Your task to perform on an android device: Open Chrome and go to the settings page Image 0: 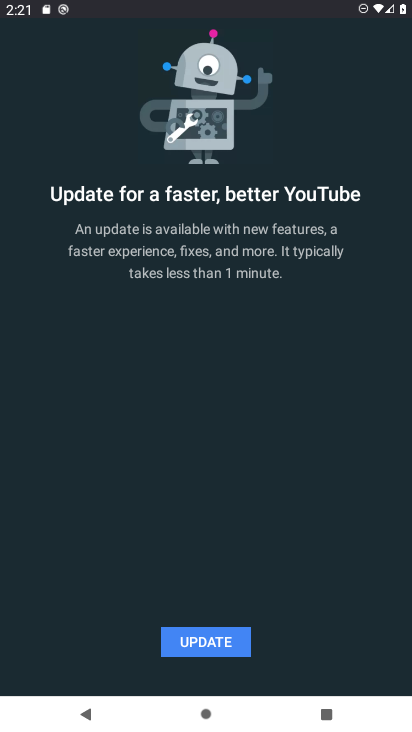
Step 0: press home button
Your task to perform on an android device: Open Chrome and go to the settings page Image 1: 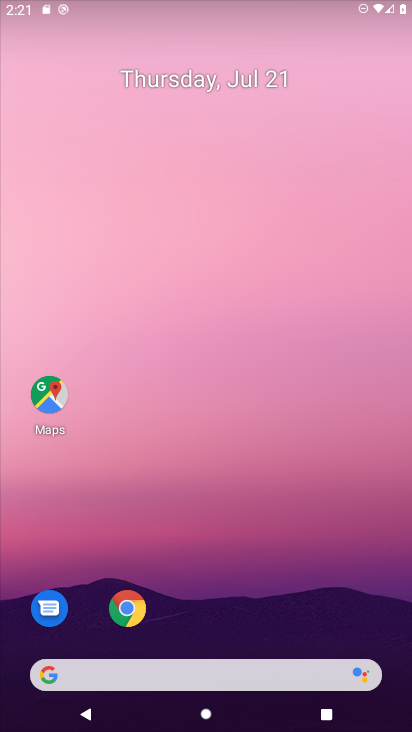
Step 1: click (141, 610)
Your task to perform on an android device: Open Chrome and go to the settings page Image 2: 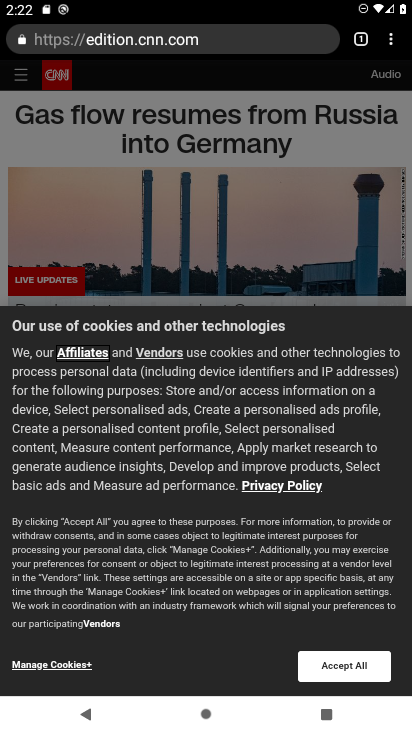
Step 2: click (387, 47)
Your task to perform on an android device: Open Chrome and go to the settings page Image 3: 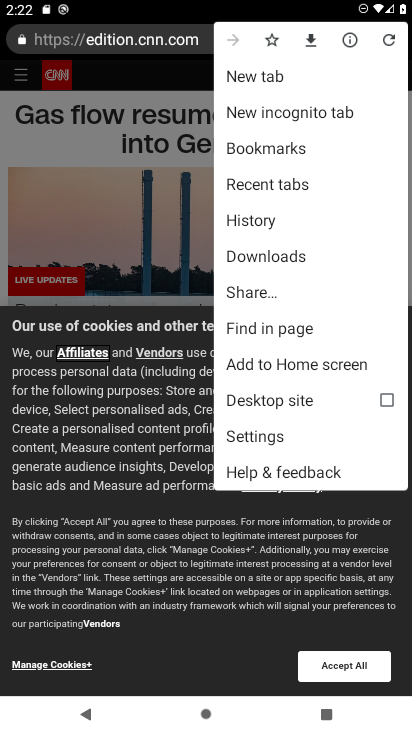
Step 3: click (269, 432)
Your task to perform on an android device: Open Chrome and go to the settings page Image 4: 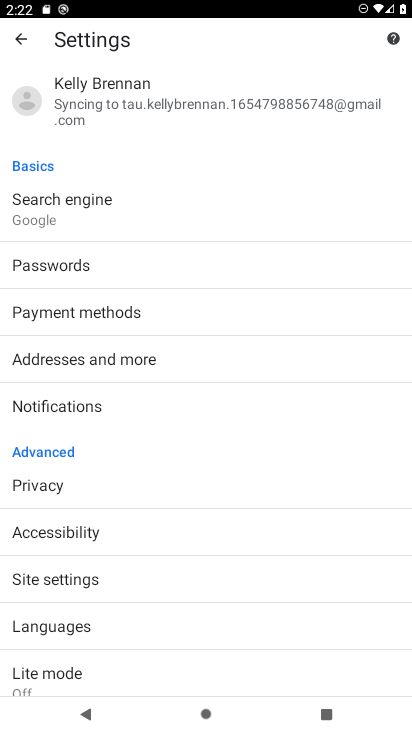
Step 4: task complete